Your task to perform on an android device: empty trash in the gmail app Image 0: 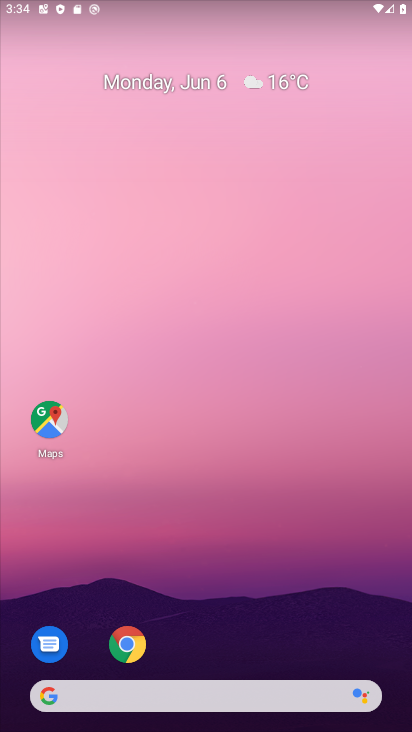
Step 0: drag from (239, 549) to (162, 42)
Your task to perform on an android device: empty trash in the gmail app Image 1: 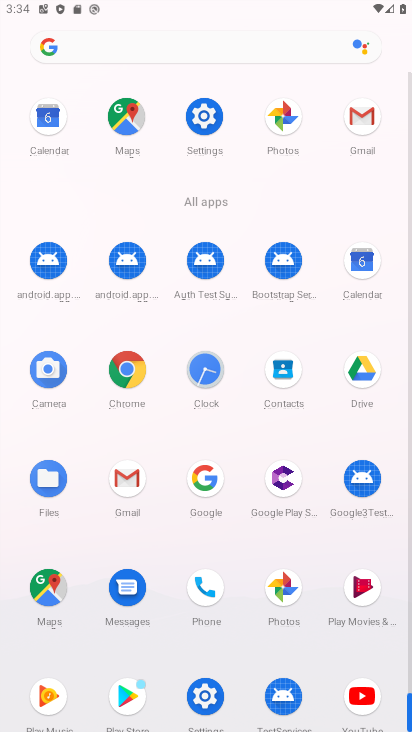
Step 1: drag from (17, 574) to (32, 273)
Your task to perform on an android device: empty trash in the gmail app Image 2: 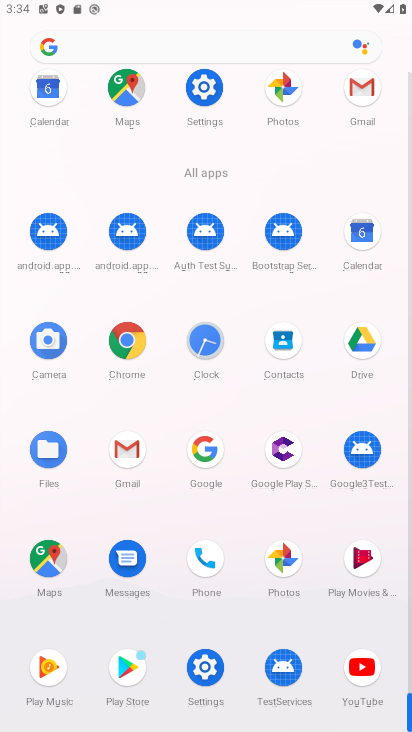
Step 2: click (120, 442)
Your task to perform on an android device: empty trash in the gmail app Image 3: 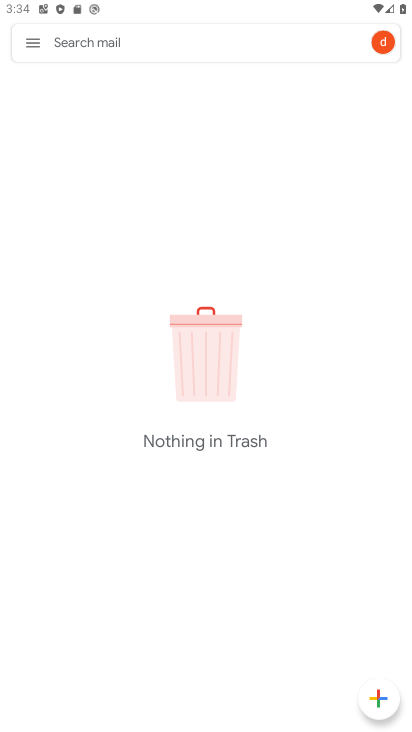
Step 3: click (39, 50)
Your task to perform on an android device: empty trash in the gmail app Image 4: 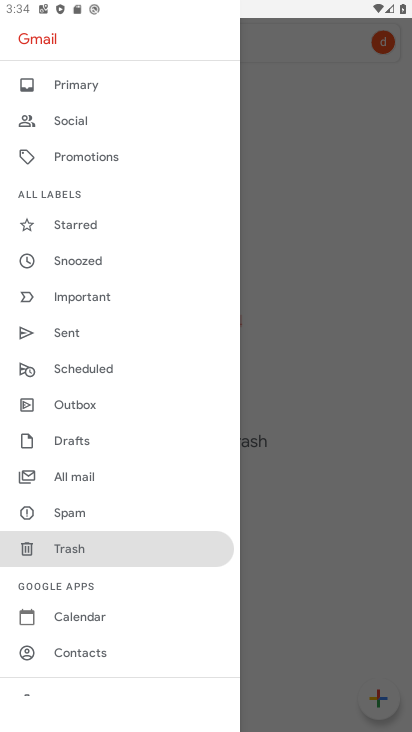
Step 4: click (148, 551)
Your task to perform on an android device: empty trash in the gmail app Image 5: 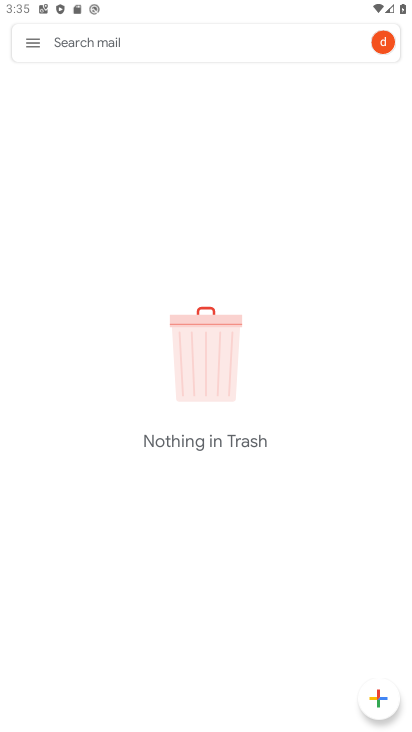
Step 5: click (41, 52)
Your task to perform on an android device: empty trash in the gmail app Image 6: 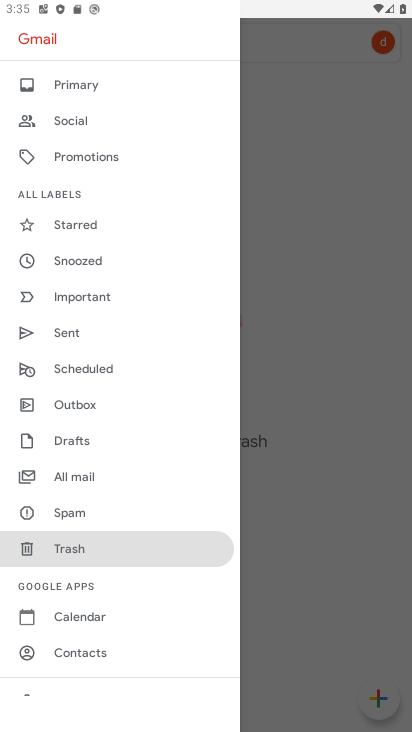
Step 6: click (76, 548)
Your task to perform on an android device: empty trash in the gmail app Image 7: 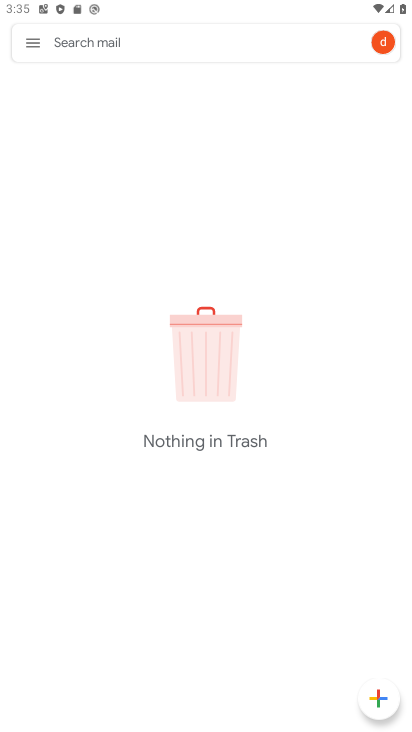
Step 7: task complete